Your task to perform on an android device: toggle data saver in the chrome app Image 0: 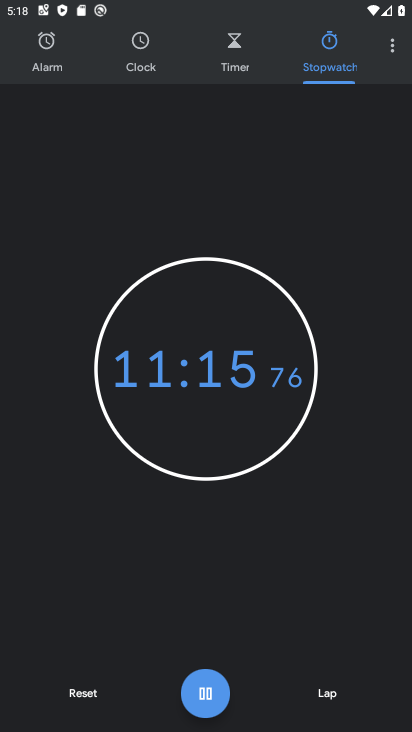
Step 0: press home button
Your task to perform on an android device: toggle data saver in the chrome app Image 1: 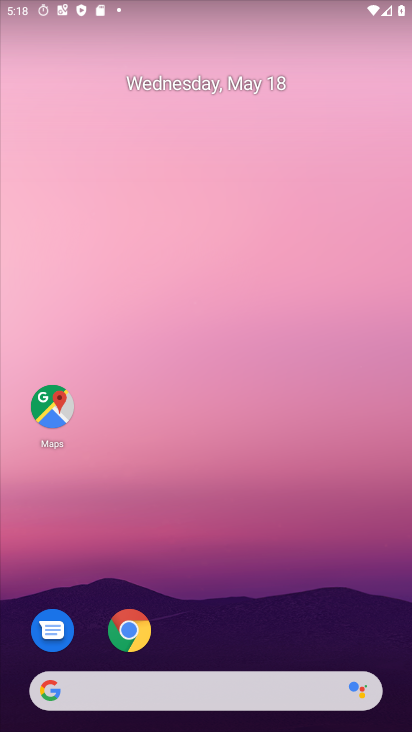
Step 1: click (131, 630)
Your task to perform on an android device: toggle data saver in the chrome app Image 2: 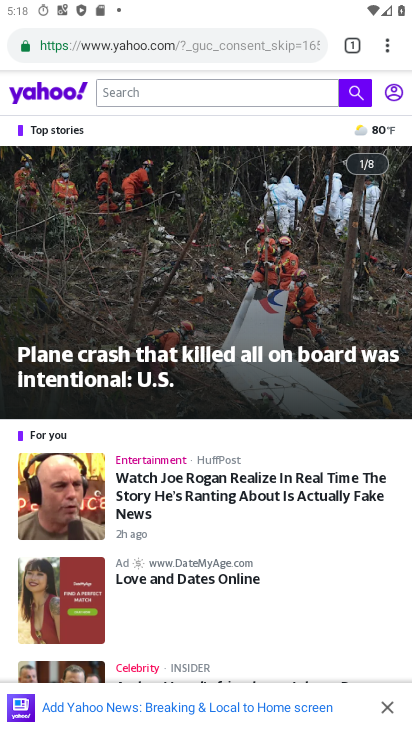
Step 2: click (390, 45)
Your task to perform on an android device: toggle data saver in the chrome app Image 3: 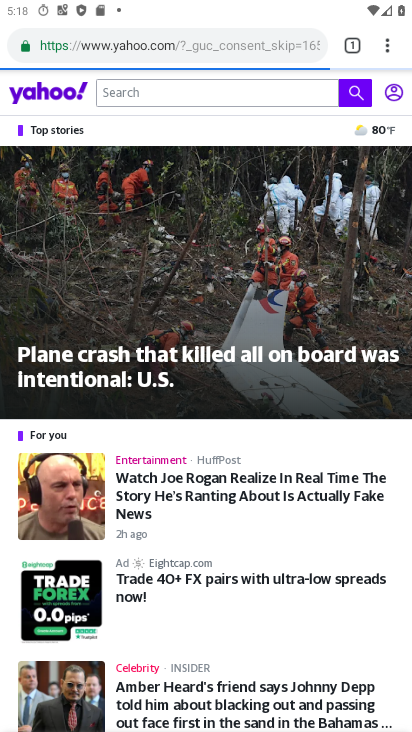
Step 3: click (388, 45)
Your task to perform on an android device: toggle data saver in the chrome app Image 4: 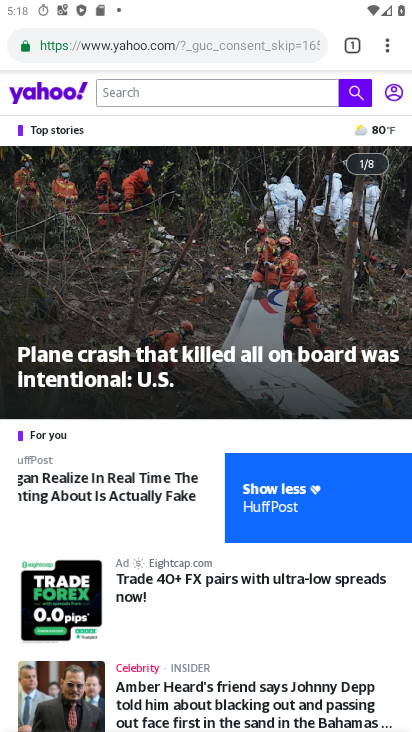
Step 4: click (388, 45)
Your task to perform on an android device: toggle data saver in the chrome app Image 5: 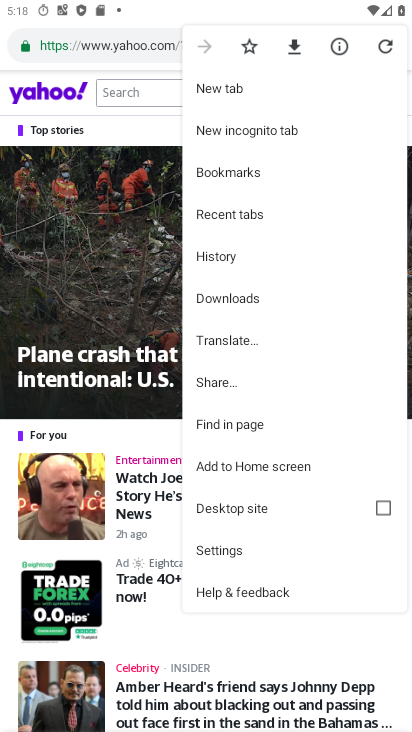
Step 5: click (224, 550)
Your task to perform on an android device: toggle data saver in the chrome app Image 6: 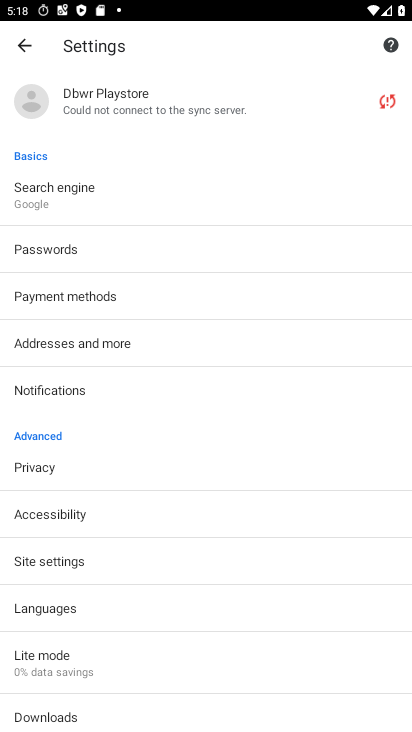
Step 6: click (39, 660)
Your task to perform on an android device: toggle data saver in the chrome app Image 7: 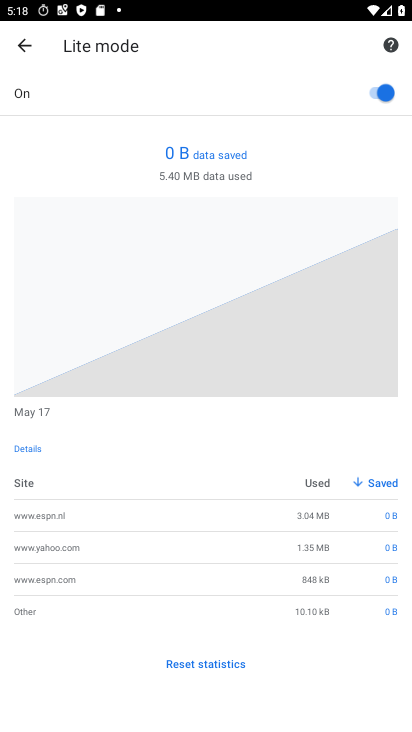
Step 7: click (376, 93)
Your task to perform on an android device: toggle data saver in the chrome app Image 8: 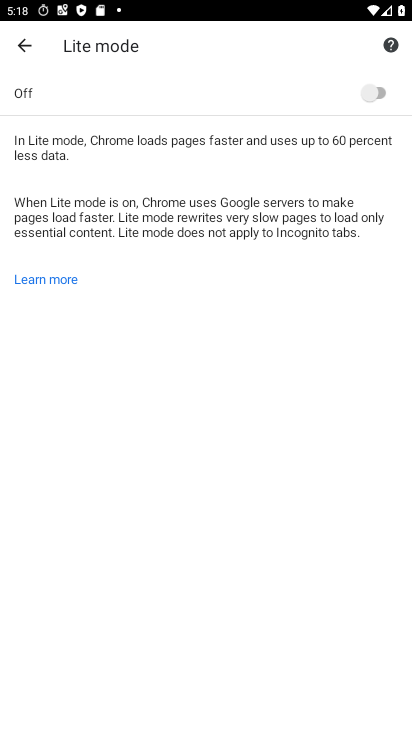
Step 8: task complete